Your task to perform on an android device: move an email to a new category in the gmail app Image 0: 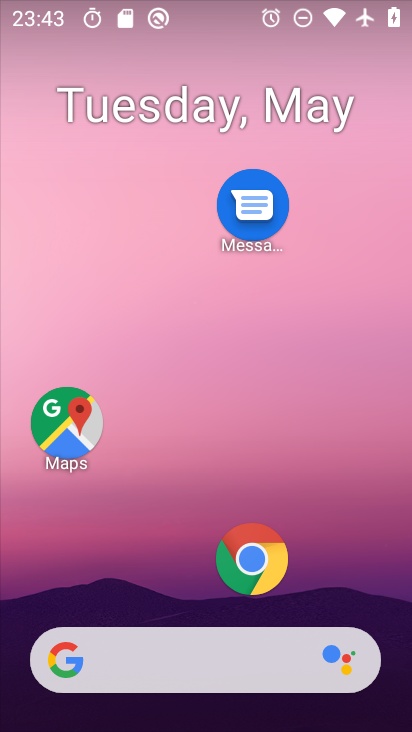
Step 0: drag from (190, 586) to (184, 131)
Your task to perform on an android device: move an email to a new category in the gmail app Image 1: 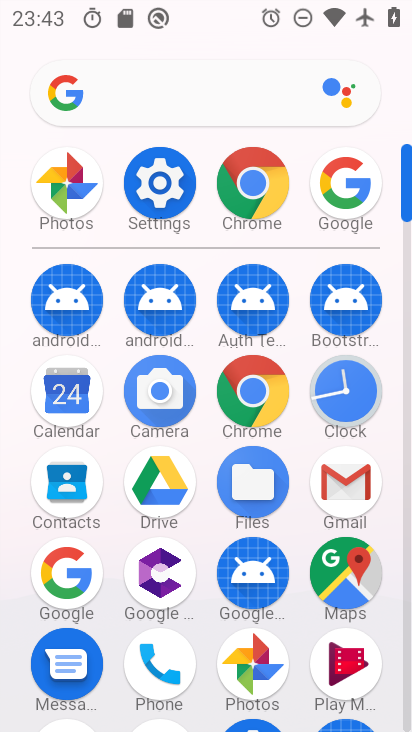
Step 1: click (321, 486)
Your task to perform on an android device: move an email to a new category in the gmail app Image 2: 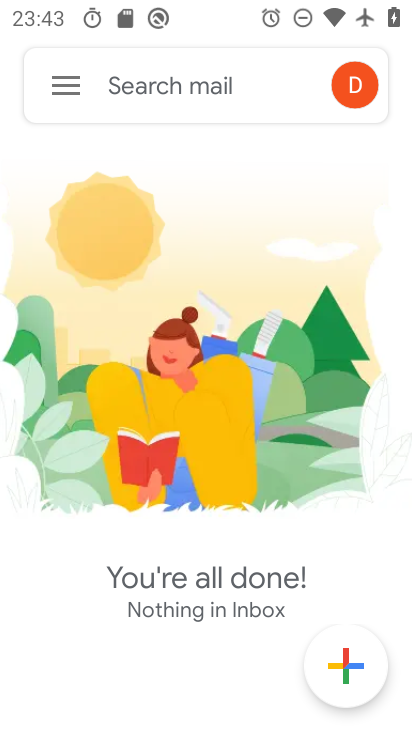
Step 2: click (69, 92)
Your task to perform on an android device: move an email to a new category in the gmail app Image 3: 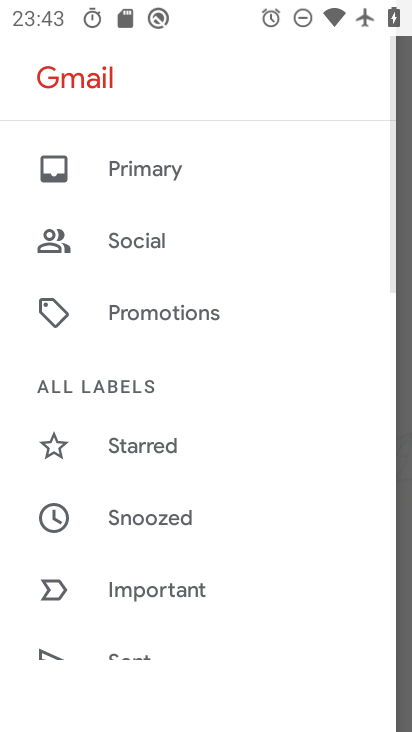
Step 3: drag from (161, 589) to (232, 223)
Your task to perform on an android device: move an email to a new category in the gmail app Image 4: 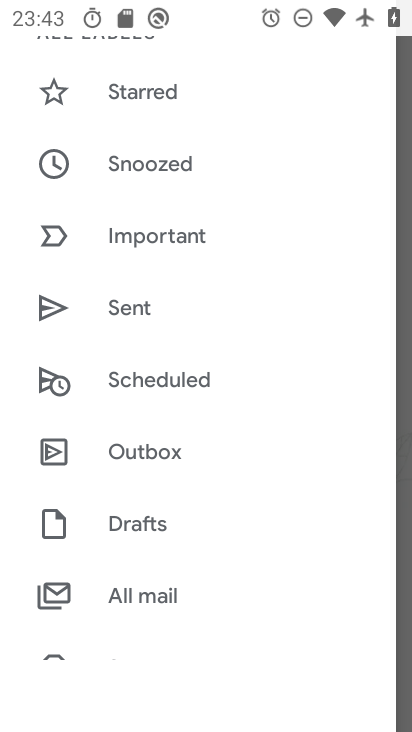
Step 4: click (183, 591)
Your task to perform on an android device: move an email to a new category in the gmail app Image 5: 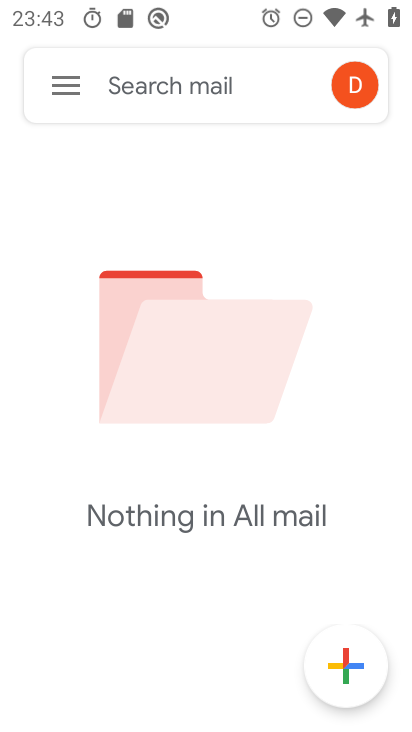
Step 5: task complete